Your task to perform on an android device: Go to network settings Image 0: 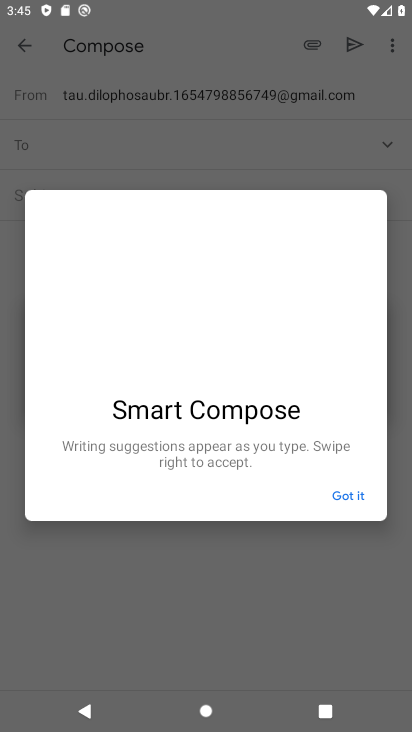
Step 0: press home button
Your task to perform on an android device: Go to network settings Image 1: 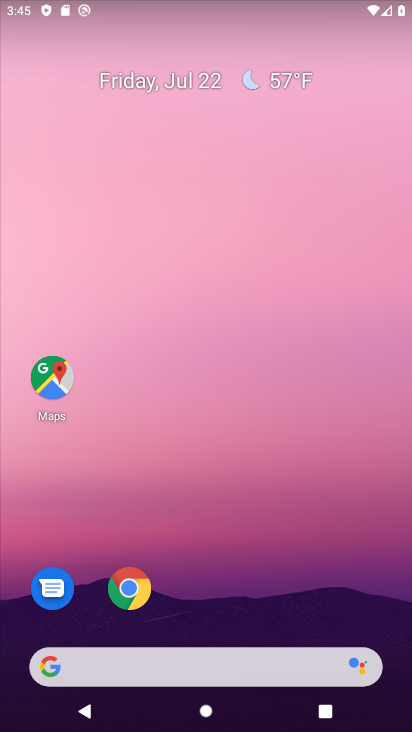
Step 1: drag from (208, 646) to (196, 52)
Your task to perform on an android device: Go to network settings Image 2: 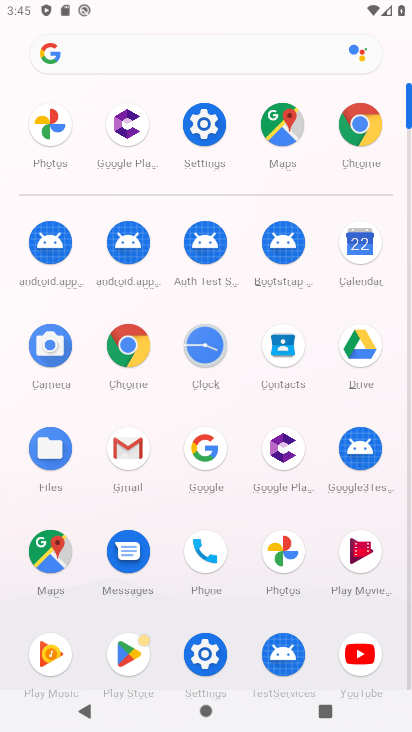
Step 2: click (208, 139)
Your task to perform on an android device: Go to network settings Image 3: 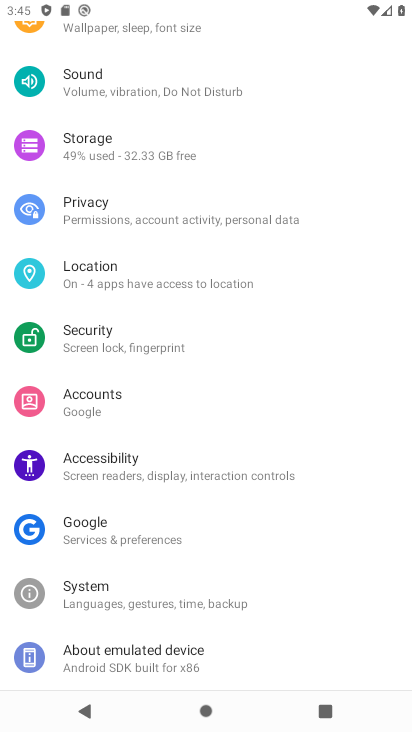
Step 3: task complete